Your task to perform on an android device: Open settings Image 0: 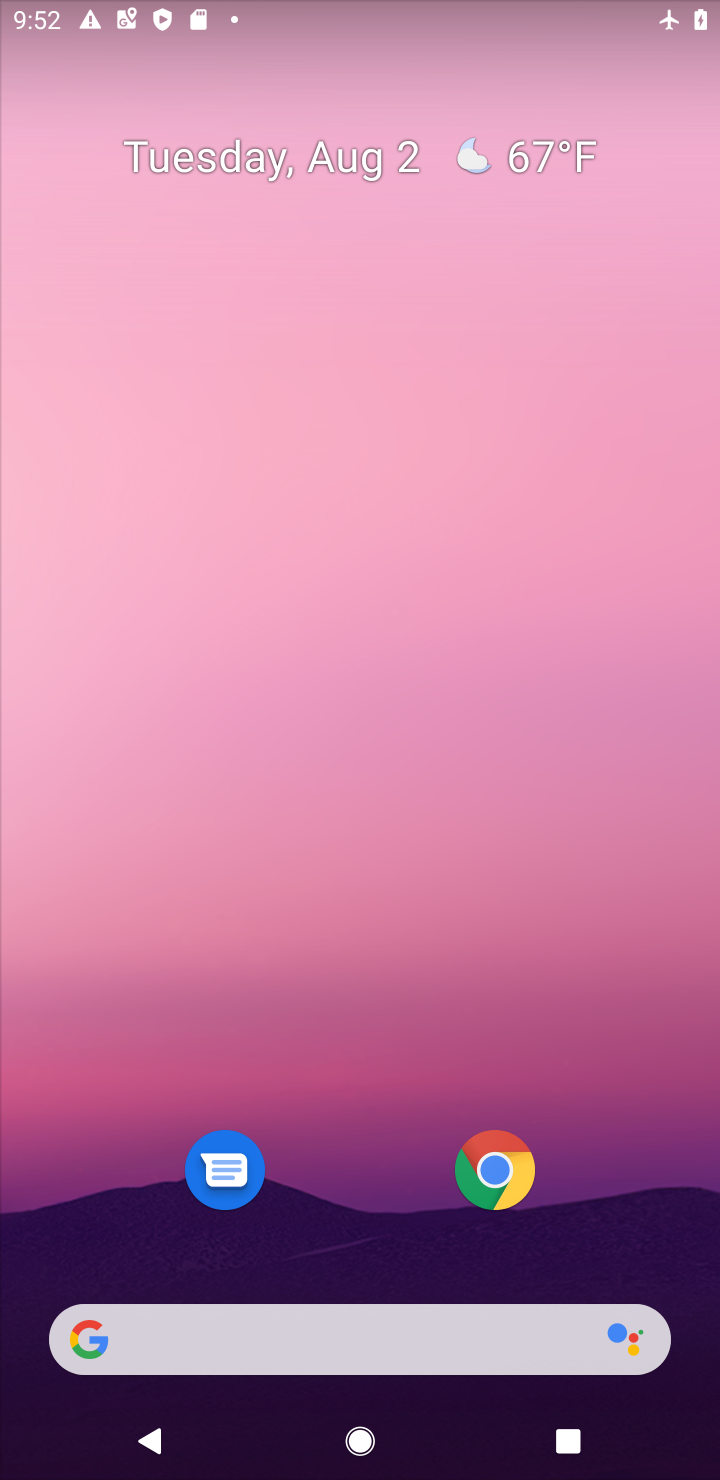
Step 0: drag from (320, 1174) to (279, 238)
Your task to perform on an android device: Open settings Image 1: 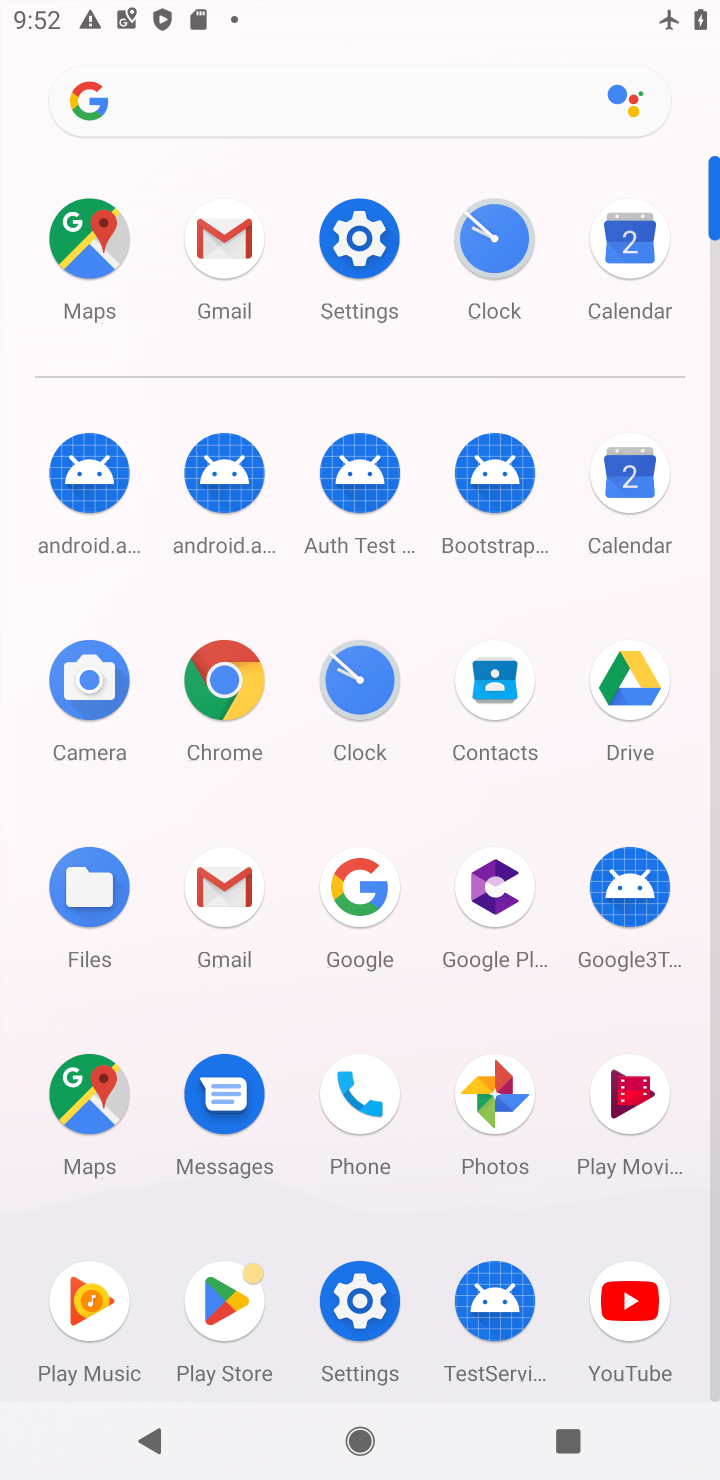
Step 1: click (350, 241)
Your task to perform on an android device: Open settings Image 2: 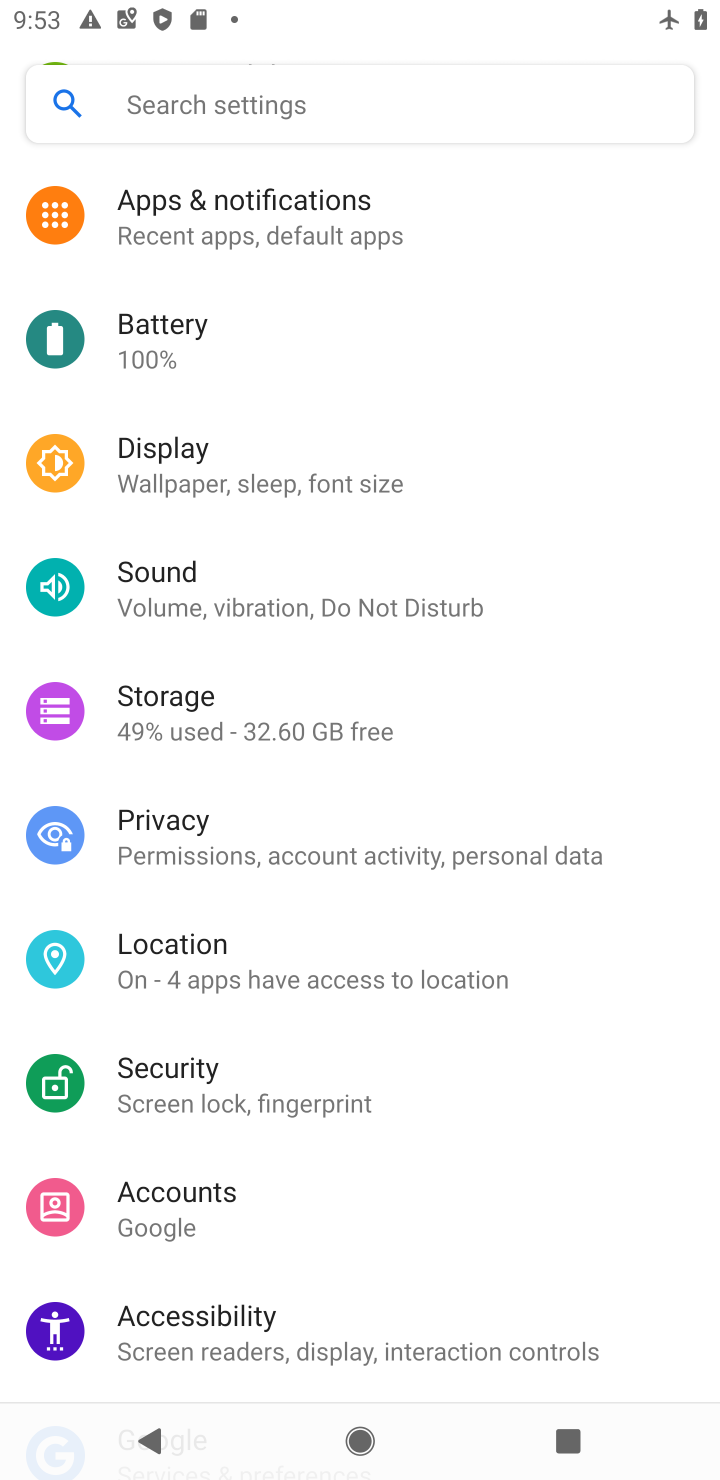
Step 2: task complete